Your task to perform on an android device: Open Google Chrome and click the shortcut for Amazon.com Image 0: 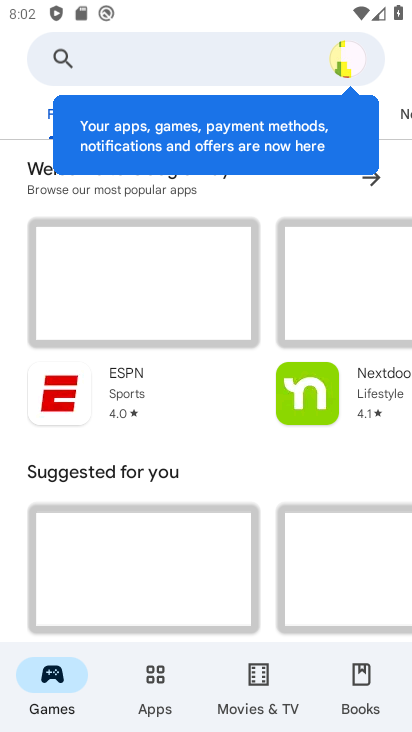
Step 0: press back button
Your task to perform on an android device: Open Google Chrome and click the shortcut for Amazon.com Image 1: 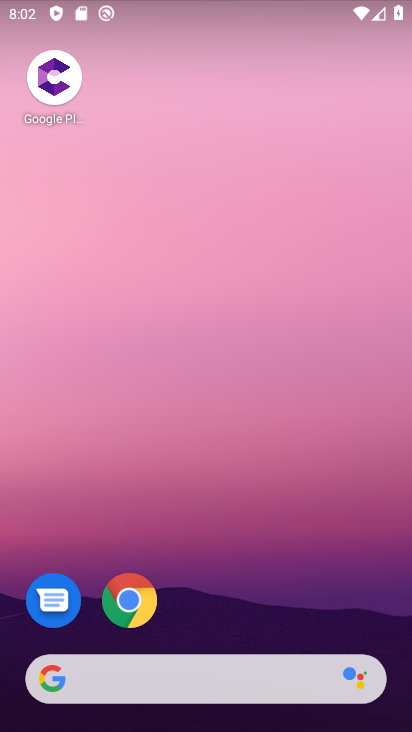
Step 1: drag from (239, 592) to (225, 22)
Your task to perform on an android device: Open Google Chrome and click the shortcut for Amazon.com Image 2: 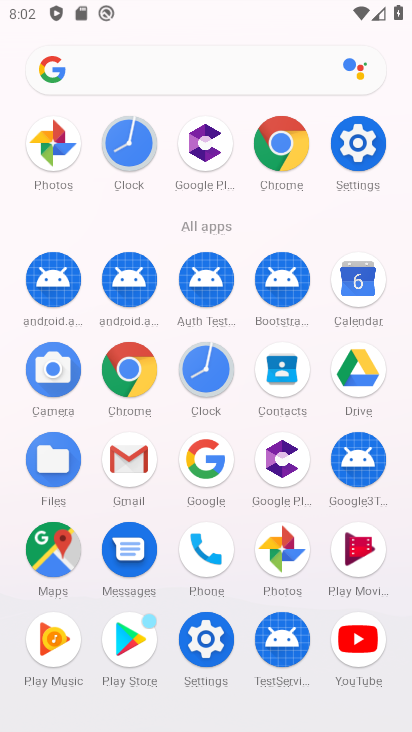
Step 2: click (283, 142)
Your task to perform on an android device: Open Google Chrome and click the shortcut for Amazon.com Image 3: 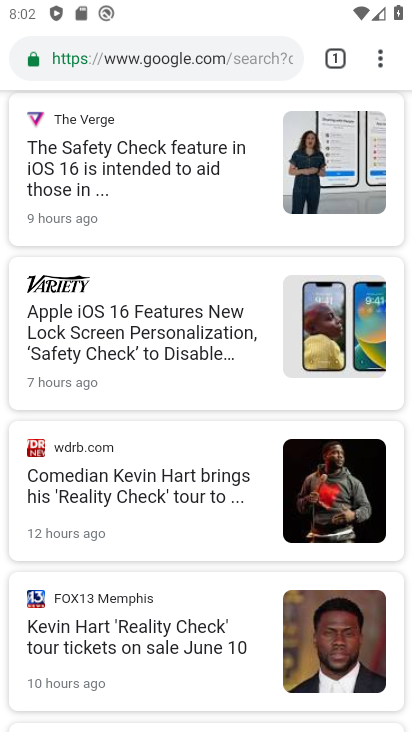
Step 3: click (191, 60)
Your task to perform on an android device: Open Google Chrome and click the shortcut for Amazon.com Image 4: 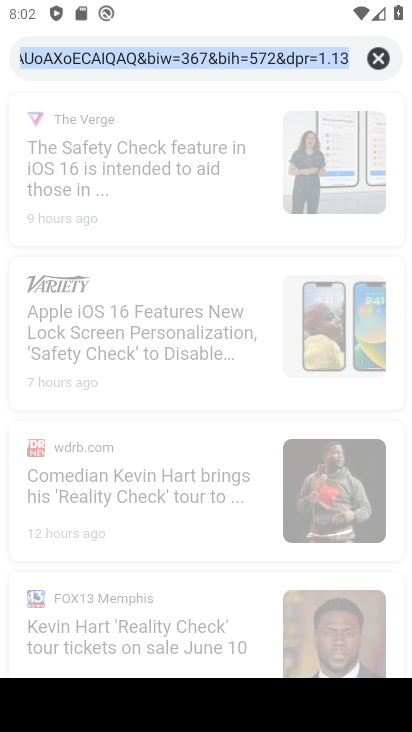
Step 4: click (376, 57)
Your task to perform on an android device: Open Google Chrome and click the shortcut for Amazon.com Image 5: 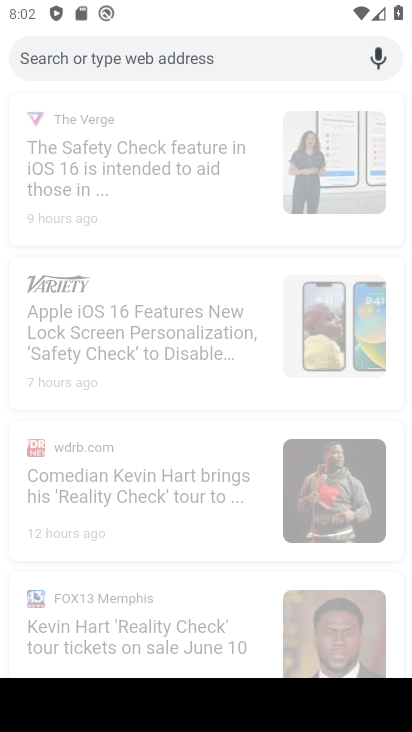
Step 5: type "Amazon.com"
Your task to perform on an android device: Open Google Chrome and click the shortcut for Amazon.com Image 6: 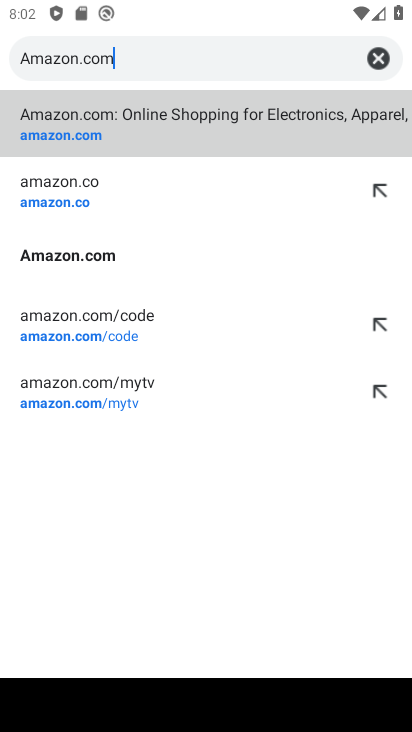
Step 6: type ""
Your task to perform on an android device: Open Google Chrome and click the shortcut for Amazon.com Image 7: 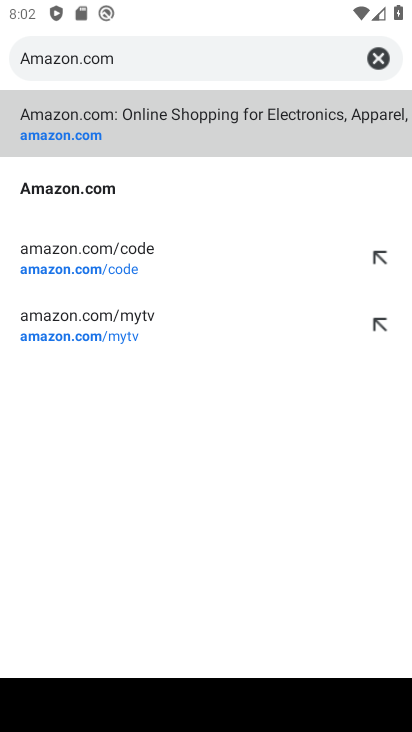
Step 7: click (152, 124)
Your task to perform on an android device: Open Google Chrome and click the shortcut for Amazon.com Image 8: 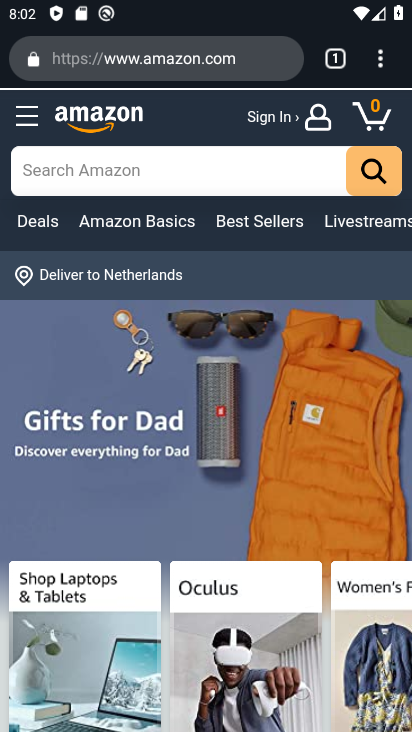
Step 8: task complete